Your task to perform on an android device: Open the calendar app, open the side menu, and click the "Day" option Image 0: 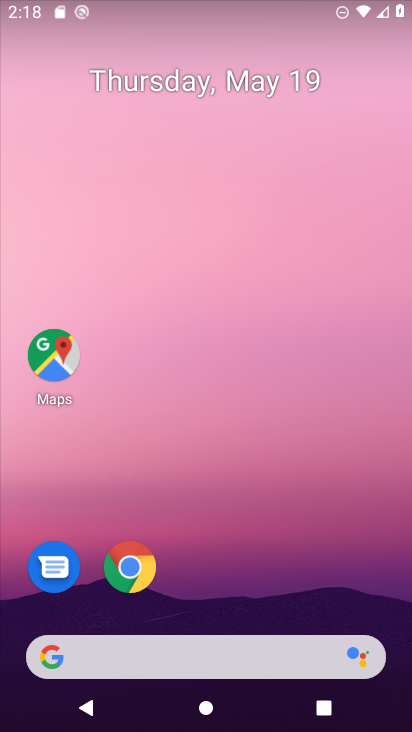
Step 0: drag from (264, 549) to (251, 27)
Your task to perform on an android device: Open the calendar app, open the side menu, and click the "Day" option Image 1: 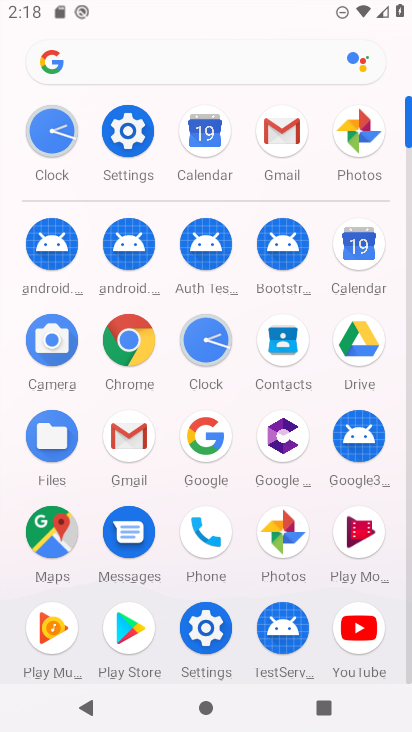
Step 1: click (214, 141)
Your task to perform on an android device: Open the calendar app, open the side menu, and click the "Day" option Image 2: 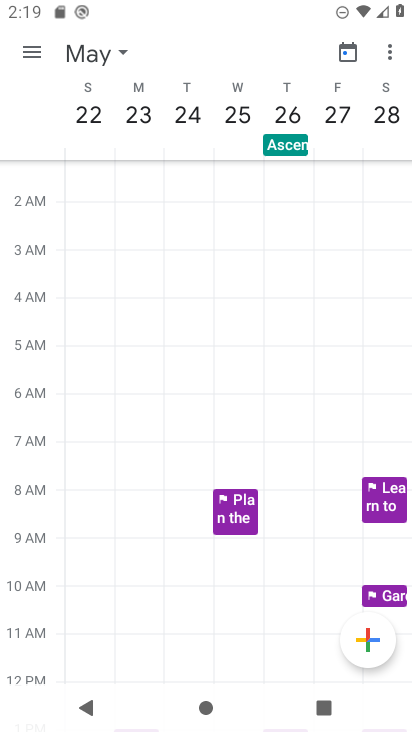
Step 2: click (35, 48)
Your task to perform on an android device: Open the calendar app, open the side menu, and click the "Day" option Image 3: 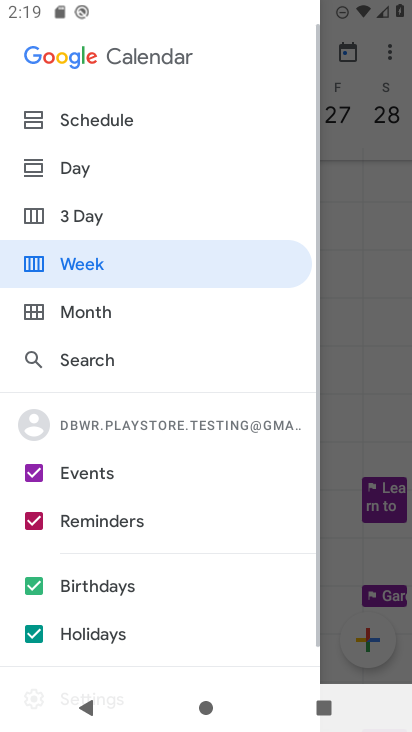
Step 3: click (37, 165)
Your task to perform on an android device: Open the calendar app, open the side menu, and click the "Day" option Image 4: 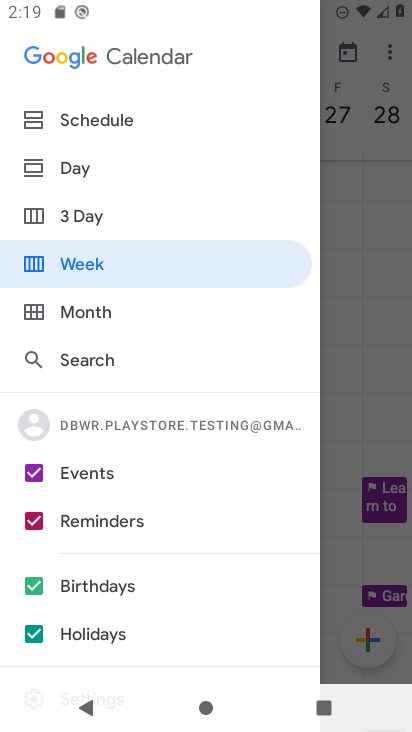
Step 4: click (44, 157)
Your task to perform on an android device: Open the calendar app, open the side menu, and click the "Day" option Image 5: 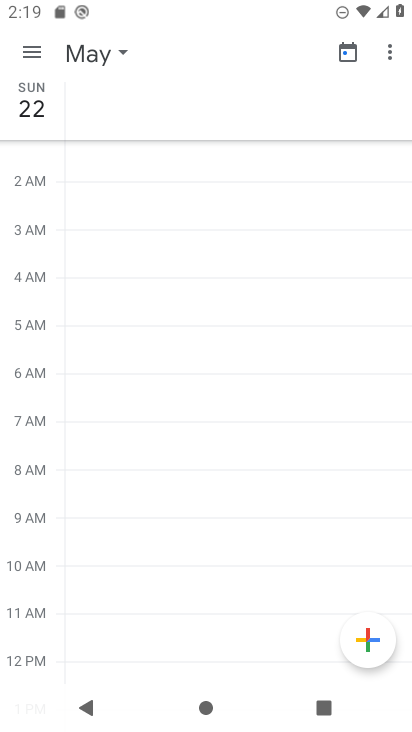
Step 5: task complete